Your task to perform on an android device: Go to internet settings Image 0: 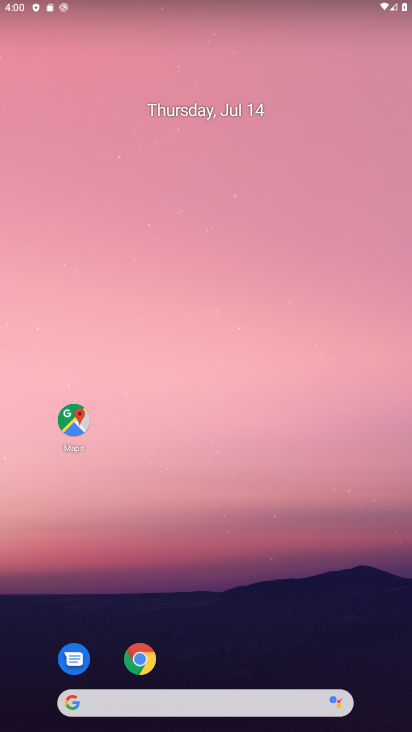
Step 0: drag from (294, 647) to (215, 274)
Your task to perform on an android device: Go to internet settings Image 1: 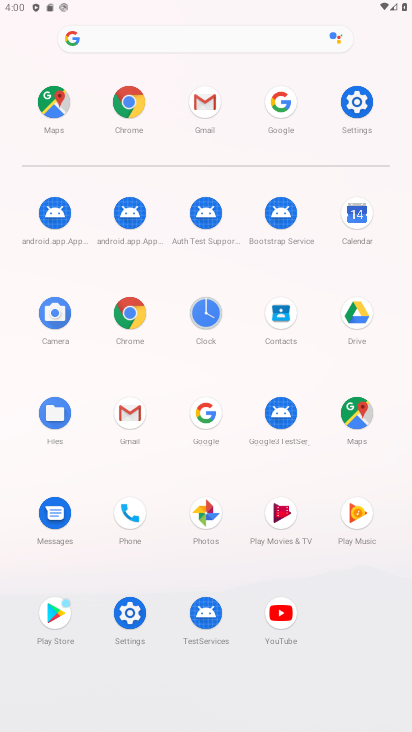
Step 1: click (359, 108)
Your task to perform on an android device: Go to internet settings Image 2: 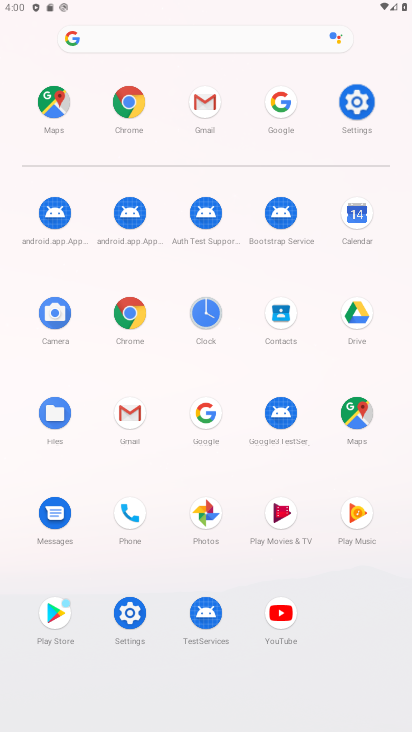
Step 2: click (353, 109)
Your task to perform on an android device: Go to internet settings Image 3: 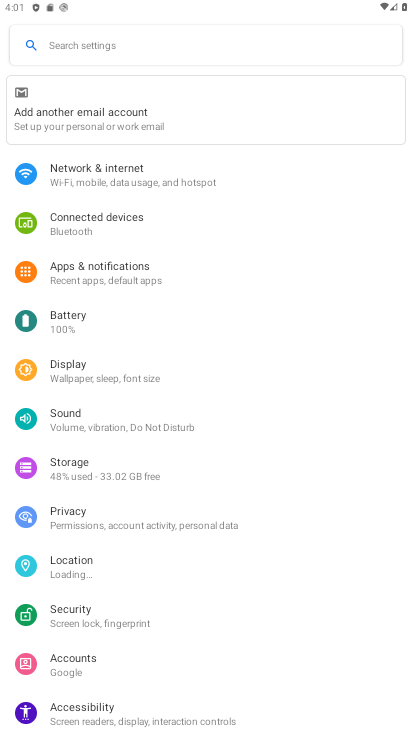
Step 3: click (108, 184)
Your task to perform on an android device: Go to internet settings Image 4: 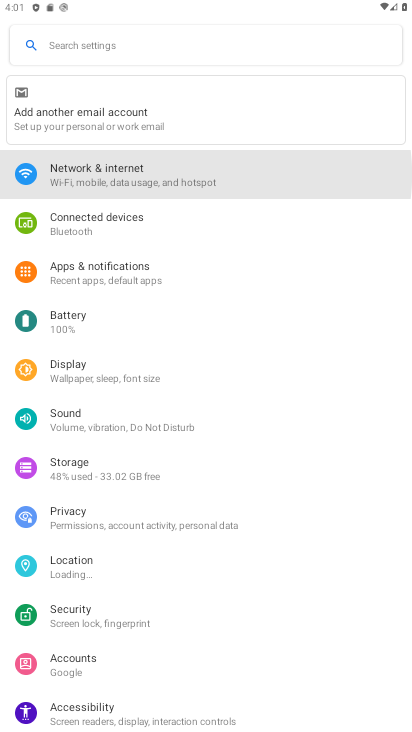
Step 4: click (120, 181)
Your task to perform on an android device: Go to internet settings Image 5: 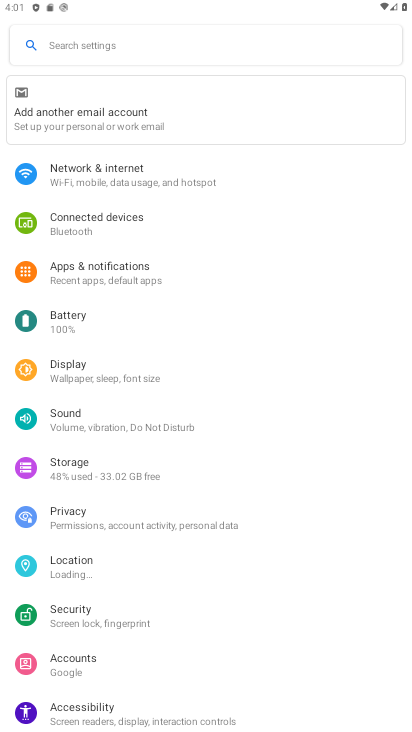
Step 5: click (129, 182)
Your task to perform on an android device: Go to internet settings Image 6: 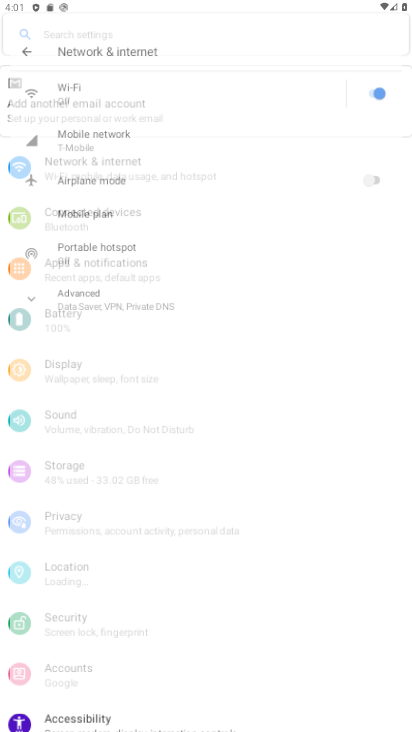
Step 6: click (129, 182)
Your task to perform on an android device: Go to internet settings Image 7: 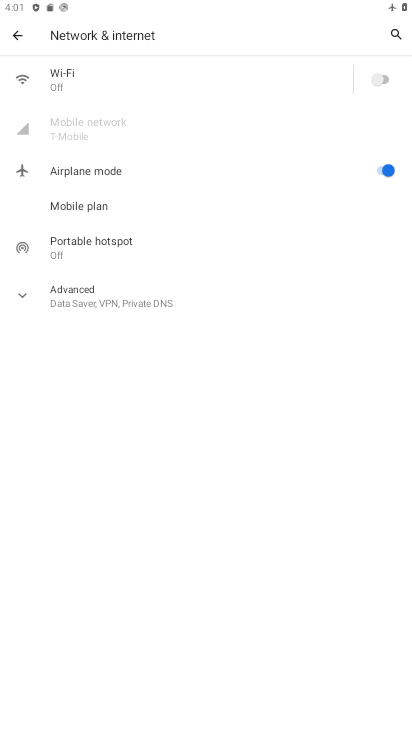
Step 7: click (381, 76)
Your task to perform on an android device: Go to internet settings Image 8: 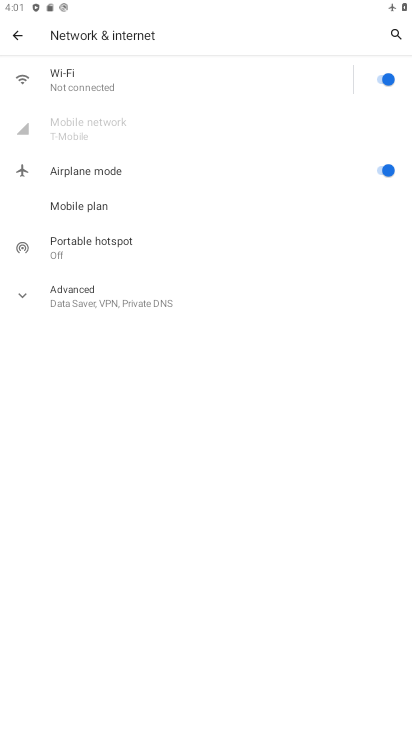
Step 8: click (388, 170)
Your task to perform on an android device: Go to internet settings Image 9: 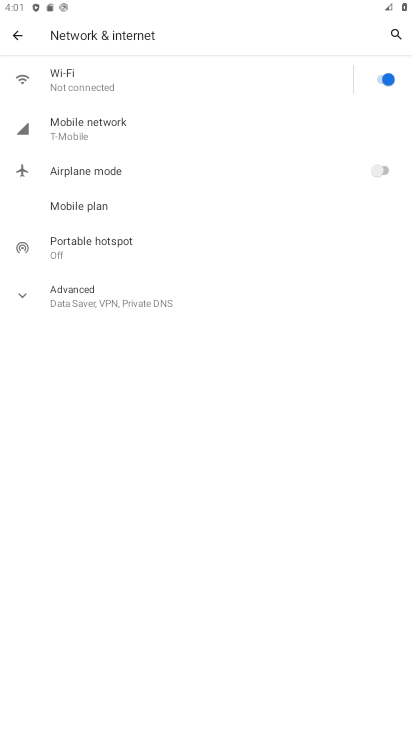
Step 9: task complete